Your task to perform on an android device: add a contact in the contacts app Image 0: 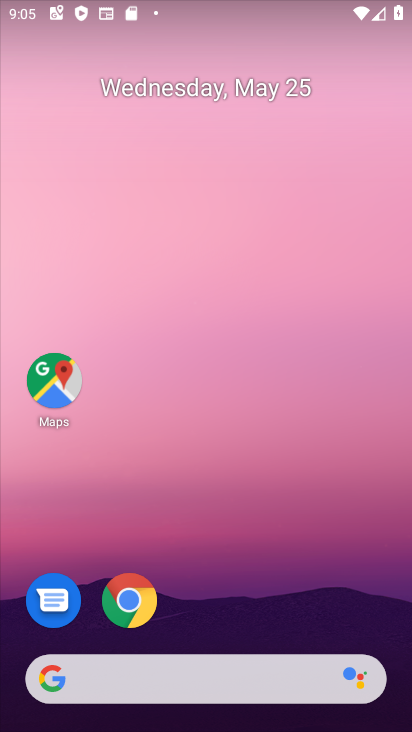
Step 0: drag from (293, 570) to (239, 9)
Your task to perform on an android device: add a contact in the contacts app Image 1: 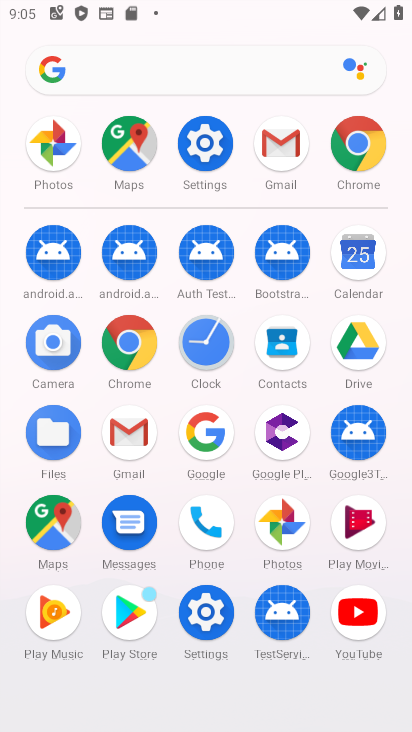
Step 1: drag from (6, 610) to (15, 317)
Your task to perform on an android device: add a contact in the contacts app Image 2: 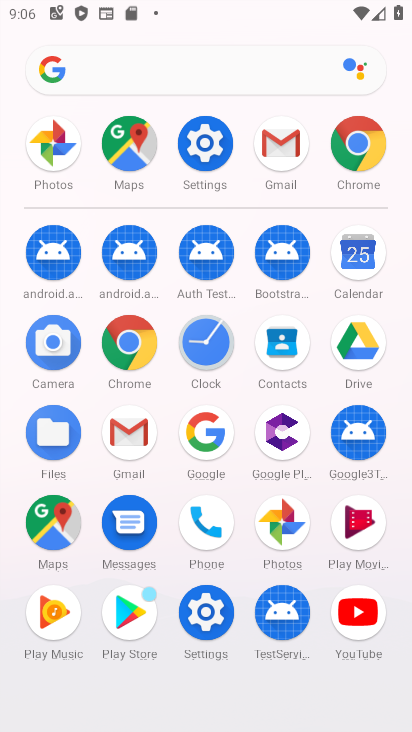
Step 2: click (284, 342)
Your task to perform on an android device: add a contact in the contacts app Image 3: 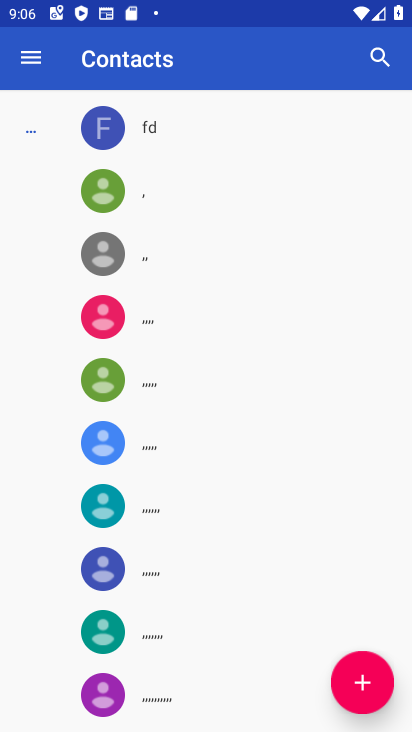
Step 3: task complete